Your task to perform on an android device: check android version Image 0: 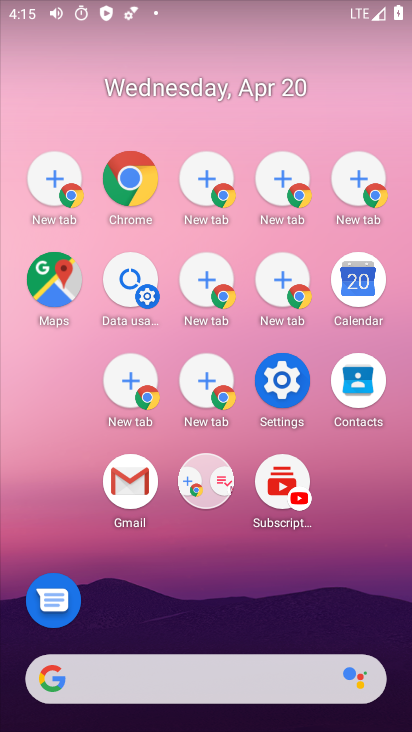
Step 0: click (112, 166)
Your task to perform on an android device: check android version Image 1: 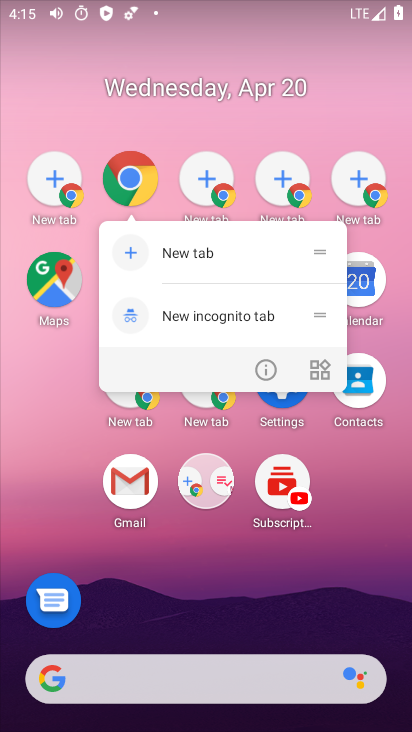
Step 1: click (113, 166)
Your task to perform on an android device: check android version Image 2: 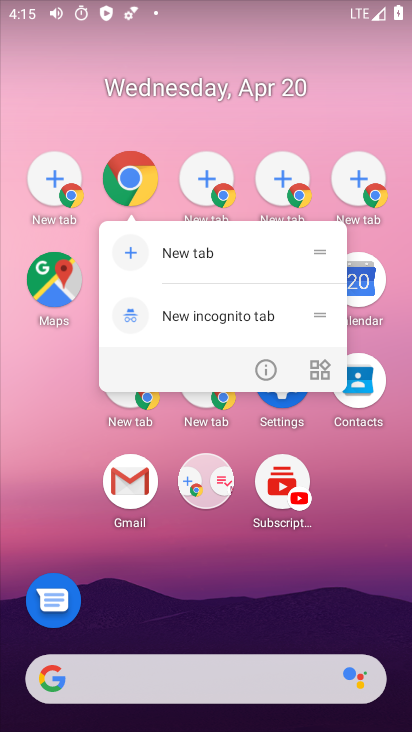
Step 2: click (113, 166)
Your task to perform on an android device: check android version Image 3: 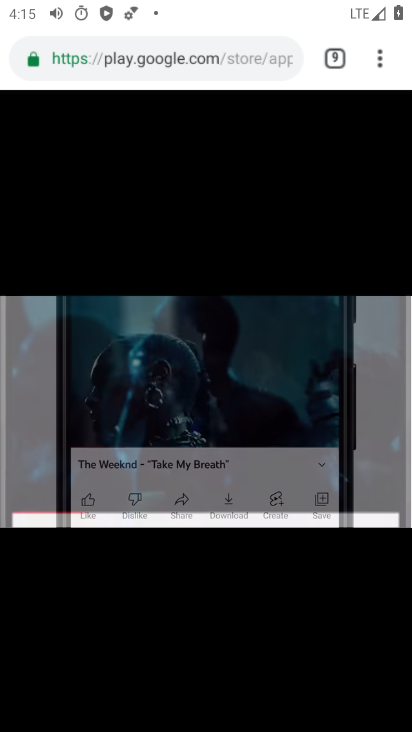
Step 3: click (113, 166)
Your task to perform on an android device: check android version Image 4: 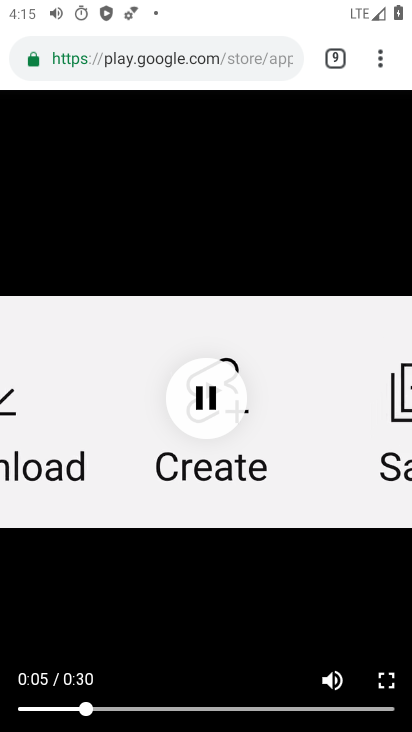
Step 4: press home button
Your task to perform on an android device: check android version Image 5: 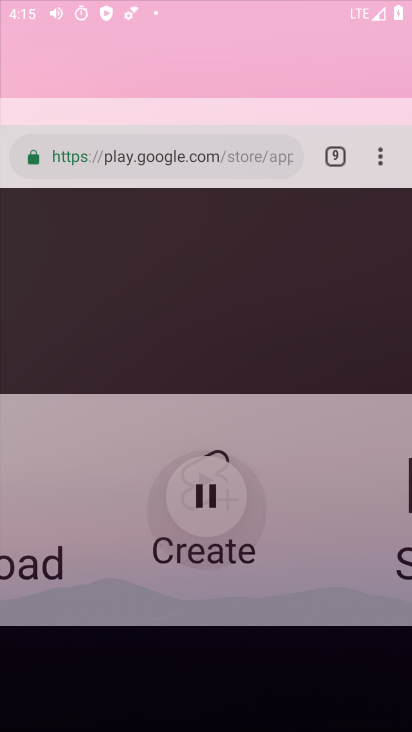
Step 5: press home button
Your task to perform on an android device: check android version Image 6: 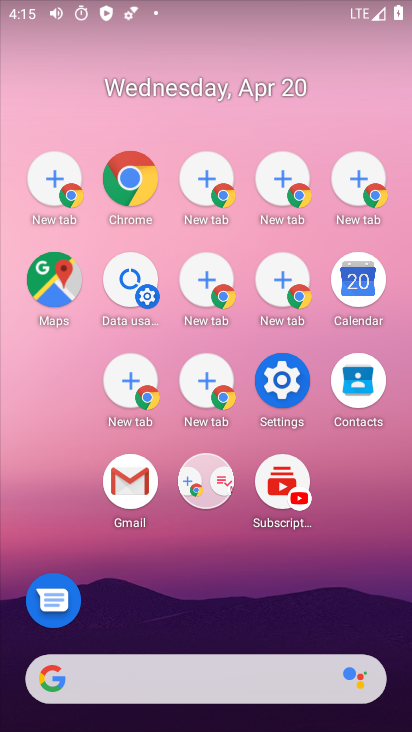
Step 6: drag from (272, 634) to (133, 9)
Your task to perform on an android device: check android version Image 7: 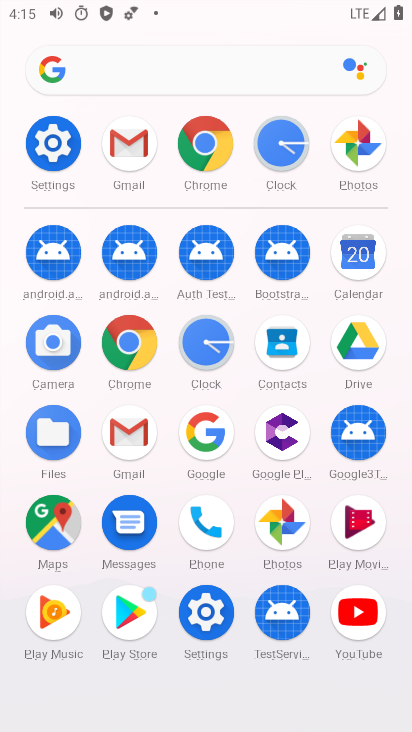
Step 7: drag from (214, 517) to (116, 0)
Your task to perform on an android device: check android version Image 8: 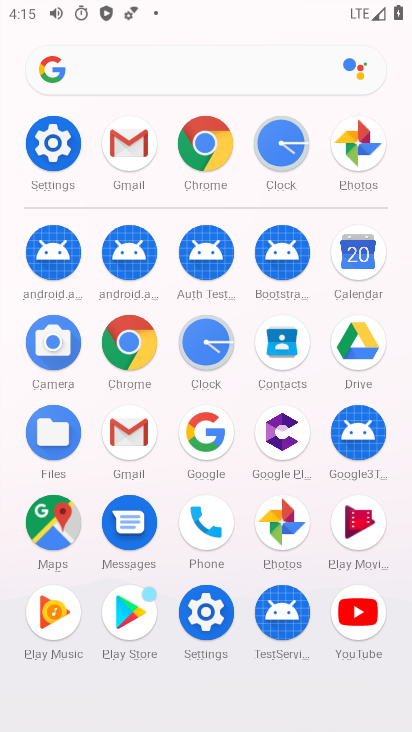
Step 8: click (53, 129)
Your task to perform on an android device: check android version Image 9: 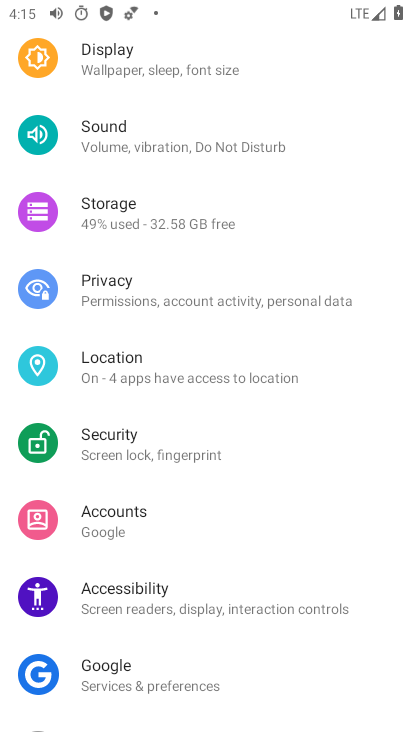
Step 9: drag from (89, 479) to (78, 93)
Your task to perform on an android device: check android version Image 10: 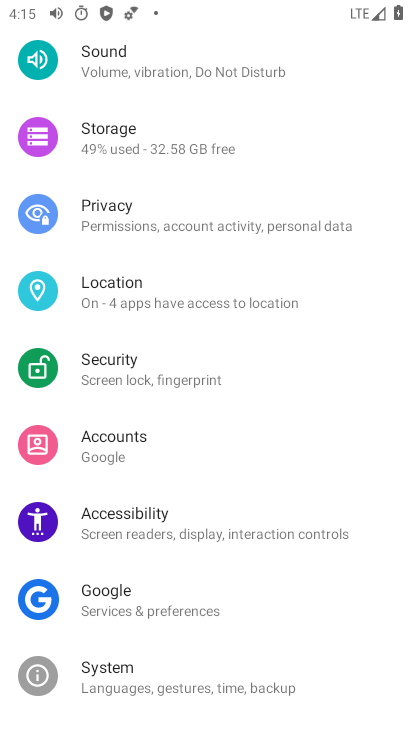
Step 10: drag from (188, 479) to (221, 266)
Your task to perform on an android device: check android version Image 11: 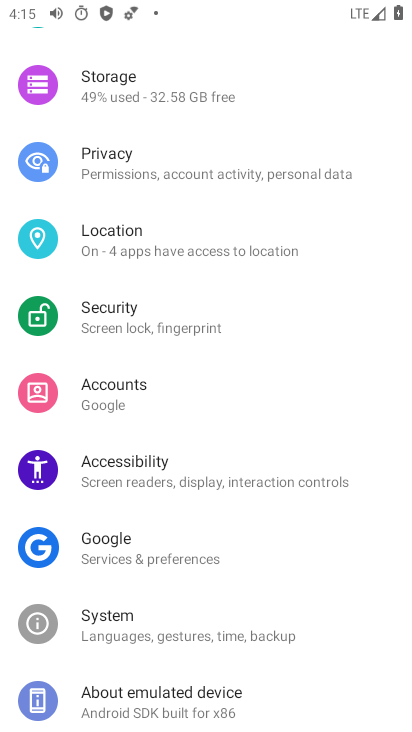
Step 11: click (126, 700)
Your task to perform on an android device: check android version Image 12: 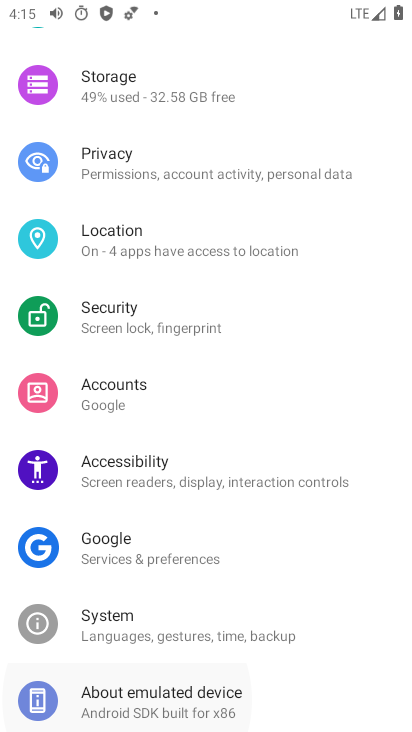
Step 12: click (126, 700)
Your task to perform on an android device: check android version Image 13: 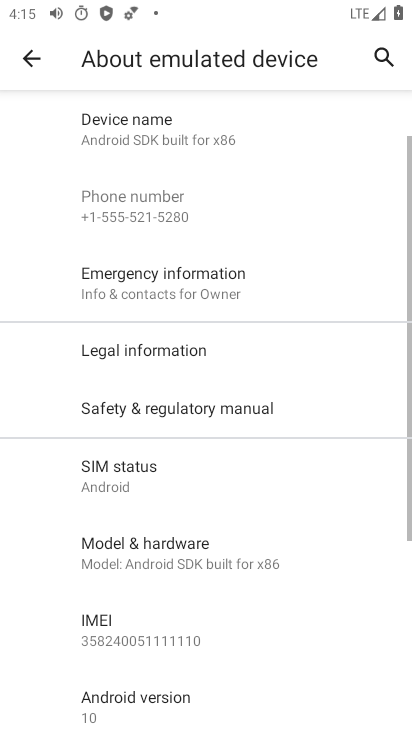
Step 13: click (126, 702)
Your task to perform on an android device: check android version Image 14: 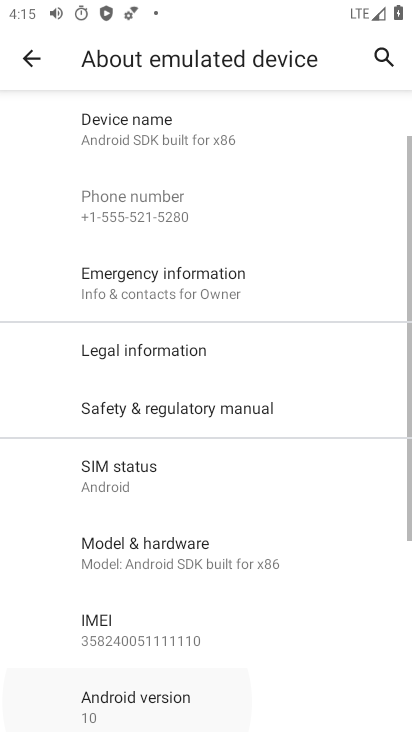
Step 14: click (125, 703)
Your task to perform on an android device: check android version Image 15: 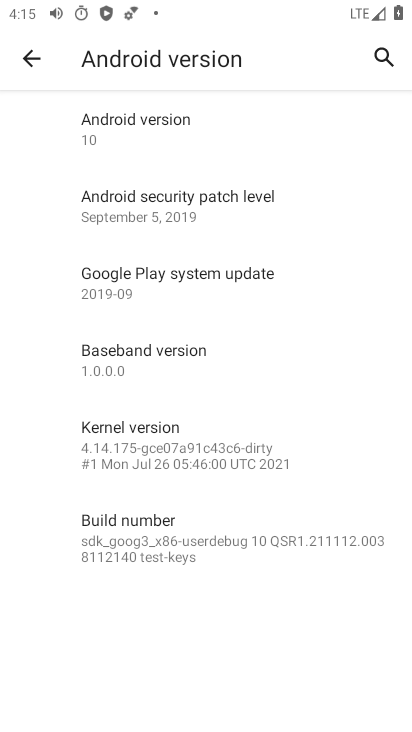
Step 15: task complete